Your task to perform on an android device: turn off notifications in google photos Image 0: 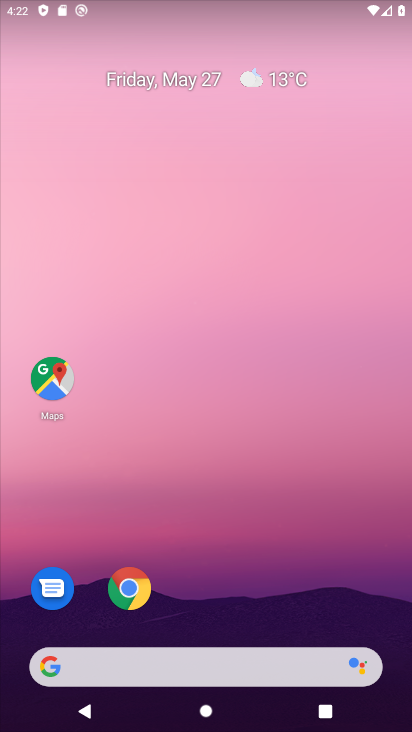
Step 0: drag from (228, 582) to (278, 69)
Your task to perform on an android device: turn off notifications in google photos Image 1: 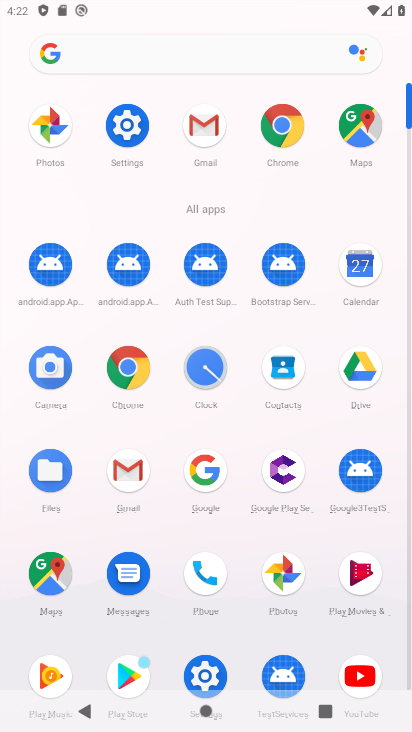
Step 1: click (288, 581)
Your task to perform on an android device: turn off notifications in google photos Image 2: 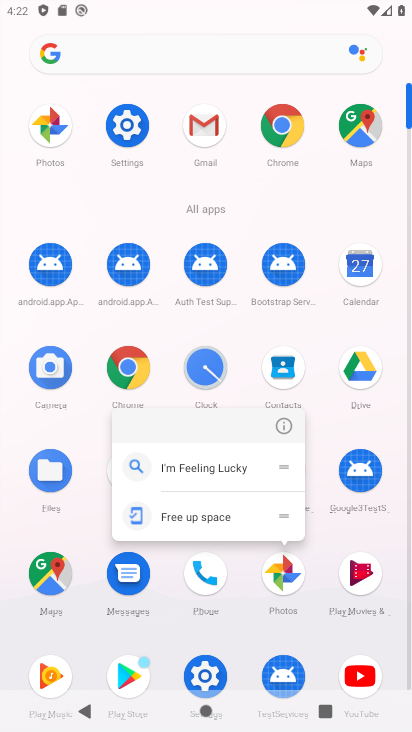
Step 2: click (282, 427)
Your task to perform on an android device: turn off notifications in google photos Image 3: 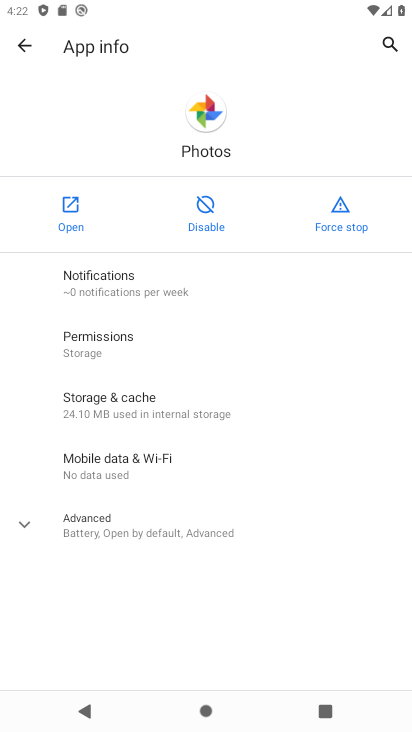
Step 3: click (168, 288)
Your task to perform on an android device: turn off notifications in google photos Image 4: 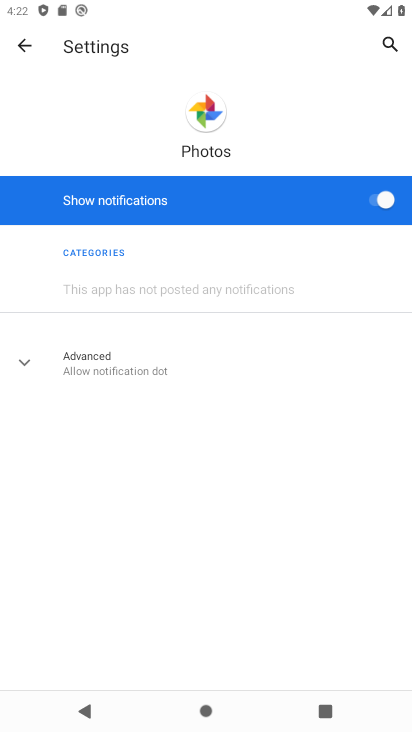
Step 4: click (375, 199)
Your task to perform on an android device: turn off notifications in google photos Image 5: 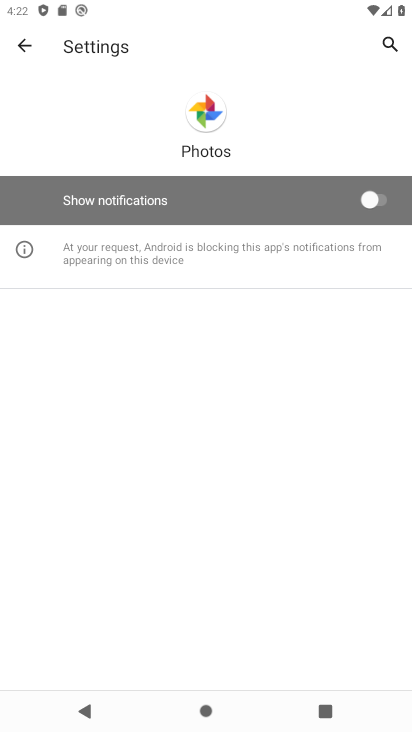
Step 5: task complete